Your task to perform on an android device: Open the web browser Image 0: 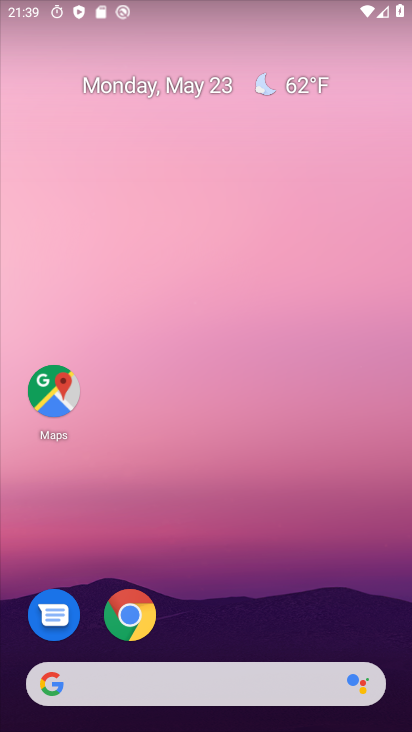
Step 0: drag from (230, 594) to (256, 96)
Your task to perform on an android device: Open the web browser Image 1: 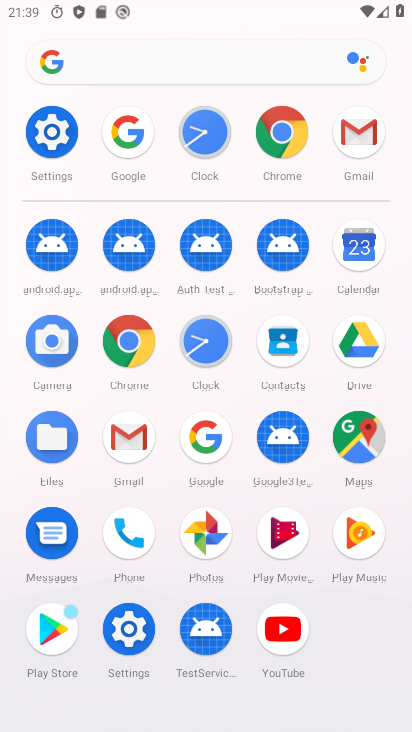
Step 1: click (131, 134)
Your task to perform on an android device: Open the web browser Image 2: 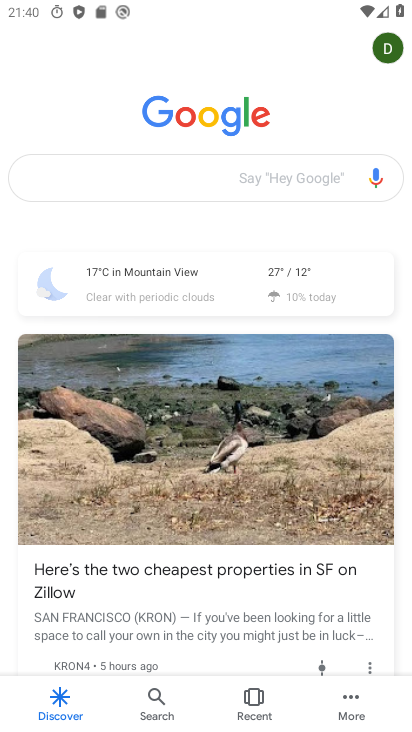
Step 2: task complete